Your task to perform on an android device: Open Reddit.com Image 0: 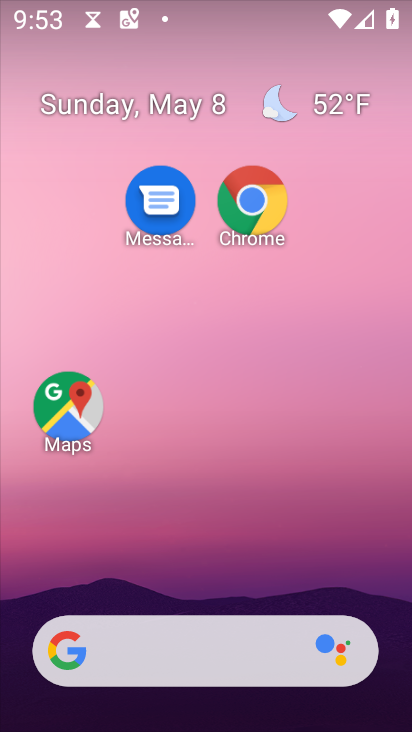
Step 0: drag from (206, 617) to (125, 6)
Your task to perform on an android device: Open Reddit.com Image 1: 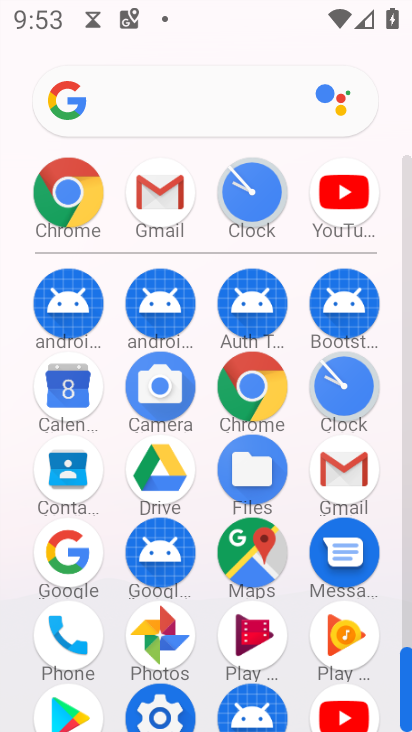
Step 1: click (251, 389)
Your task to perform on an android device: Open Reddit.com Image 2: 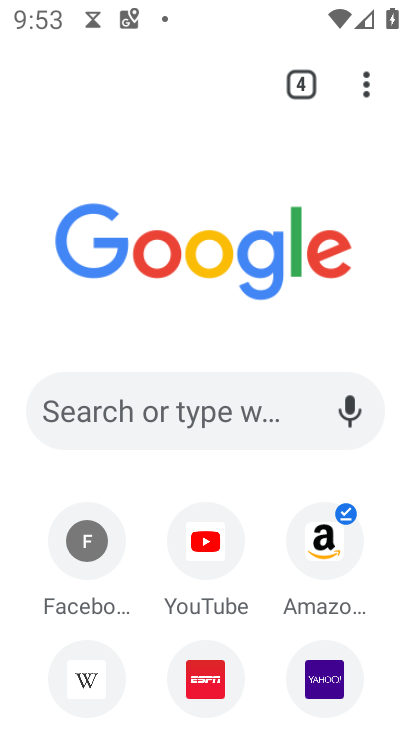
Step 2: click (223, 423)
Your task to perform on an android device: Open Reddit.com Image 3: 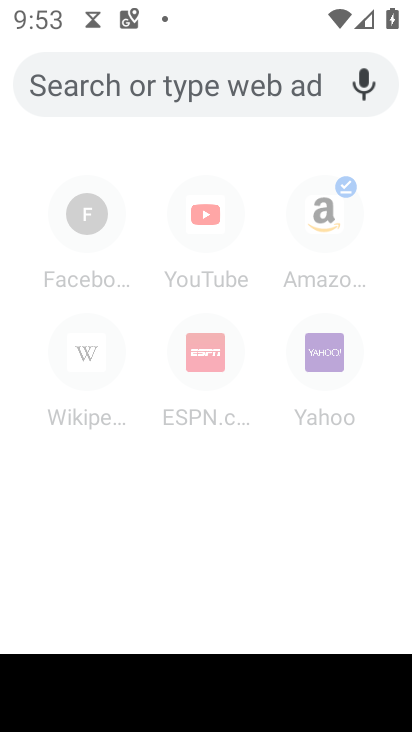
Step 3: type "reddit"
Your task to perform on an android device: Open Reddit.com Image 4: 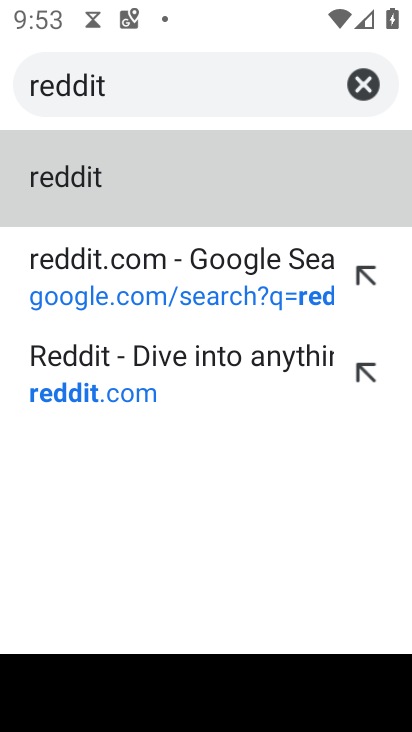
Step 4: click (87, 273)
Your task to perform on an android device: Open Reddit.com Image 5: 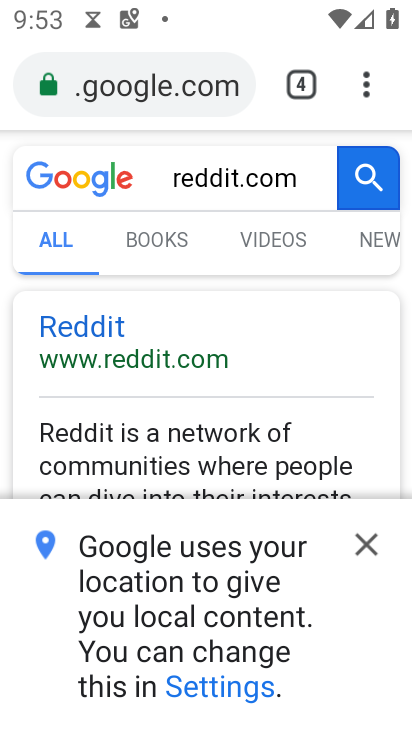
Step 5: task complete